Your task to perform on an android device: open wifi settings Image 0: 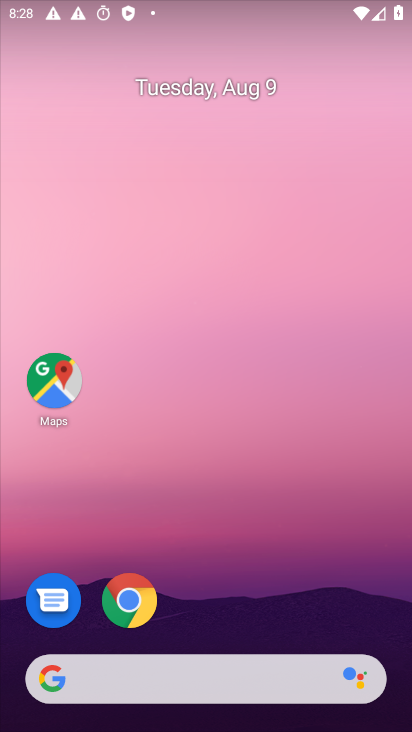
Step 0: press home button
Your task to perform on an android device: open wifi settings Image 1: 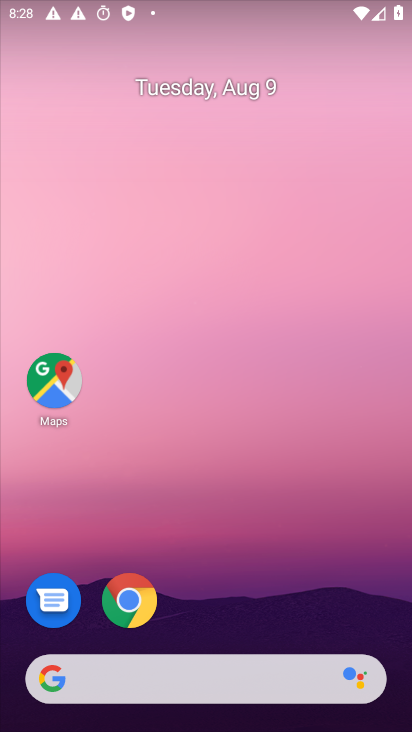
Step 1: drag from (256, 602) to (287, 116)
Your task to perform on an android device: open wifi settings Image 2: 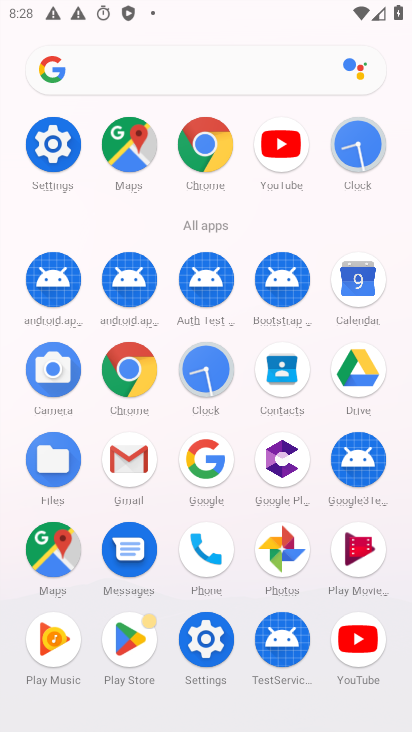
Step 2: click (57, 145)
Your task to perform on an android device: open wifi settings Image 3: 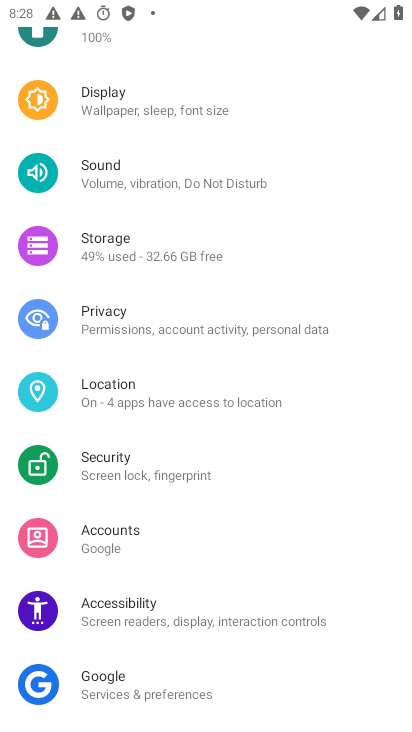
Step 3: drag from (220, 94) to (212, 703)
Your task to perform on an android device: open wifi settings Image 4: 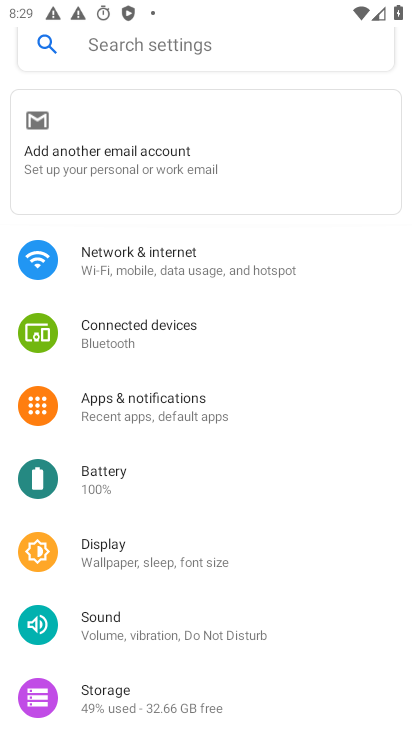
Step 4: click (163, 285)
Your task to perform on an android device: open wifi settings Image 5: 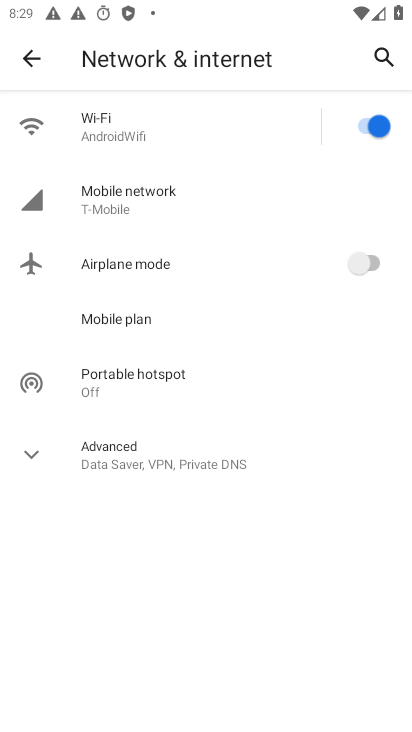
Step 5: click (100, 134)
Your task to perform on an android device: open wifi settings Image 6: 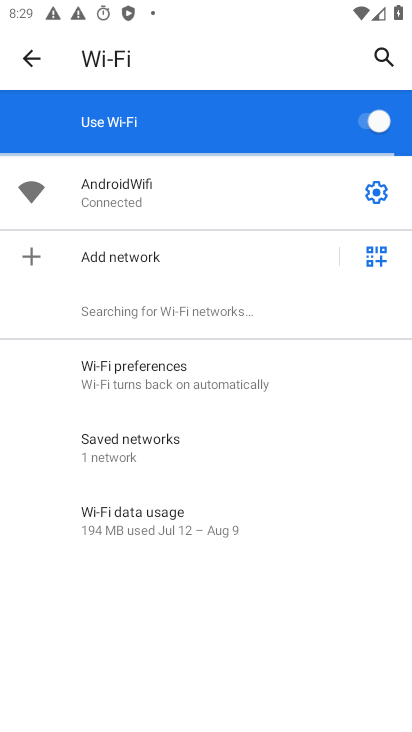
Step 6: click (122, 203)
Your task to perform on an android device: open wifi settings Image 7: 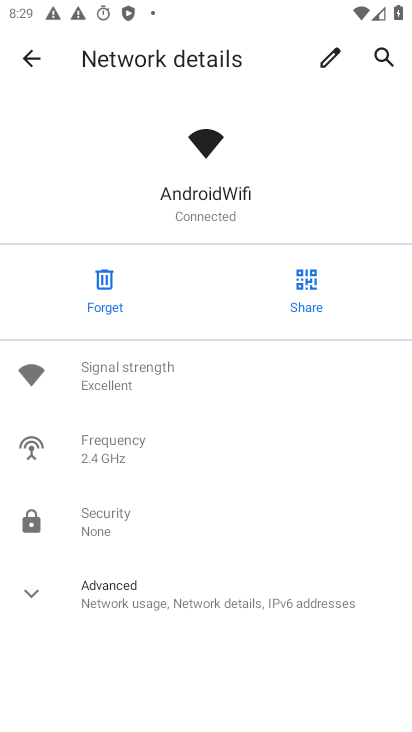
Step 7: task complete